Your task to perform on an android device: turn off translation in the chrome app Image 0: 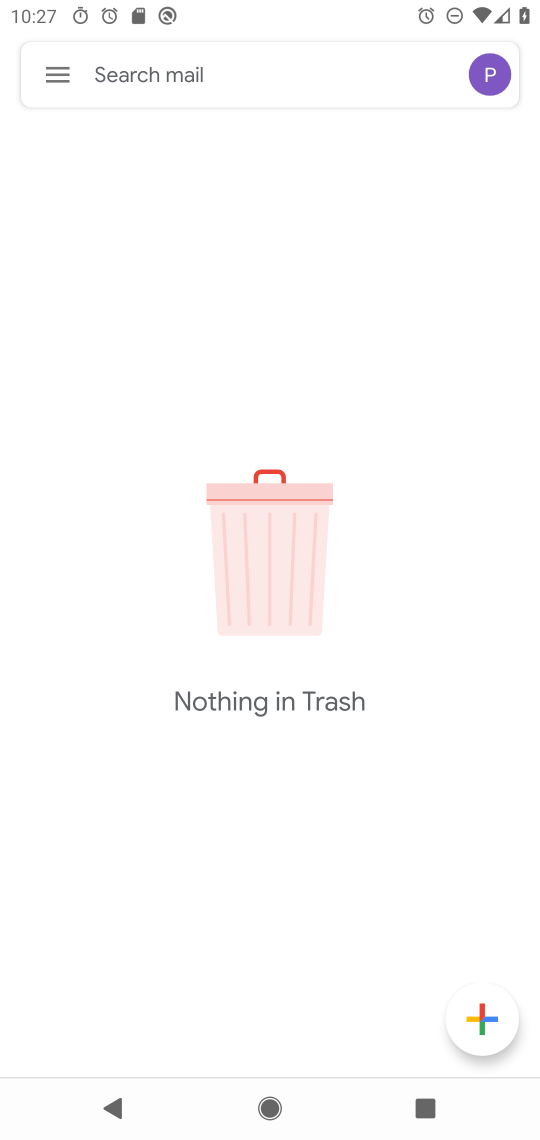
Step 0: press home button
Your task to perform on an android device: turn off translation in the chrome app Image 1: 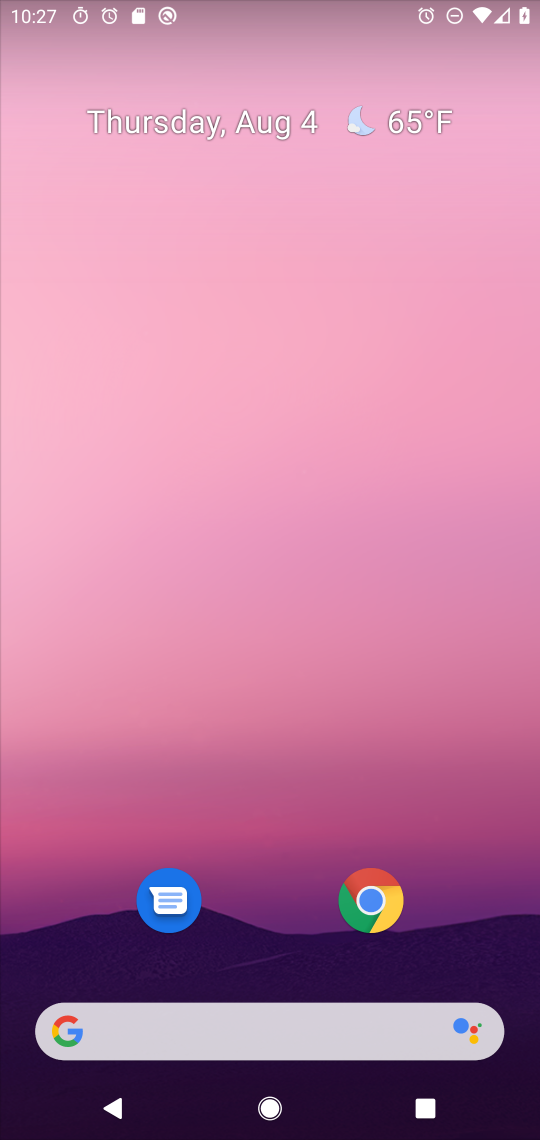
Step 1: click (373, 902)
Your task to perform on an android device: turn off translation in the chrome app Image 2: 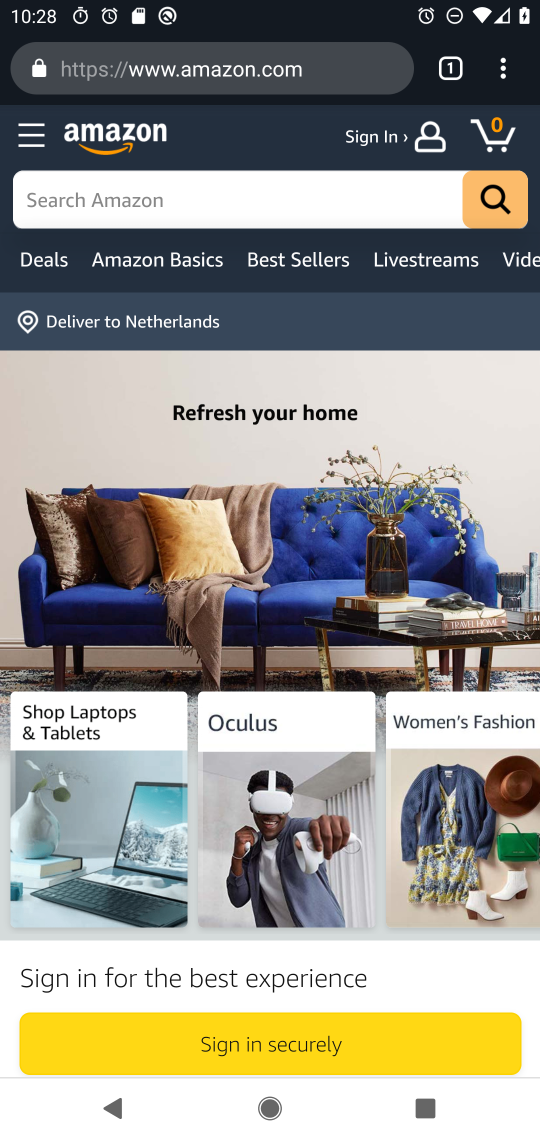
Step 2: drag from (506, 72) to (263, 888)
Your task to perform on an android device: turn off translation in the chrome app Image 3: 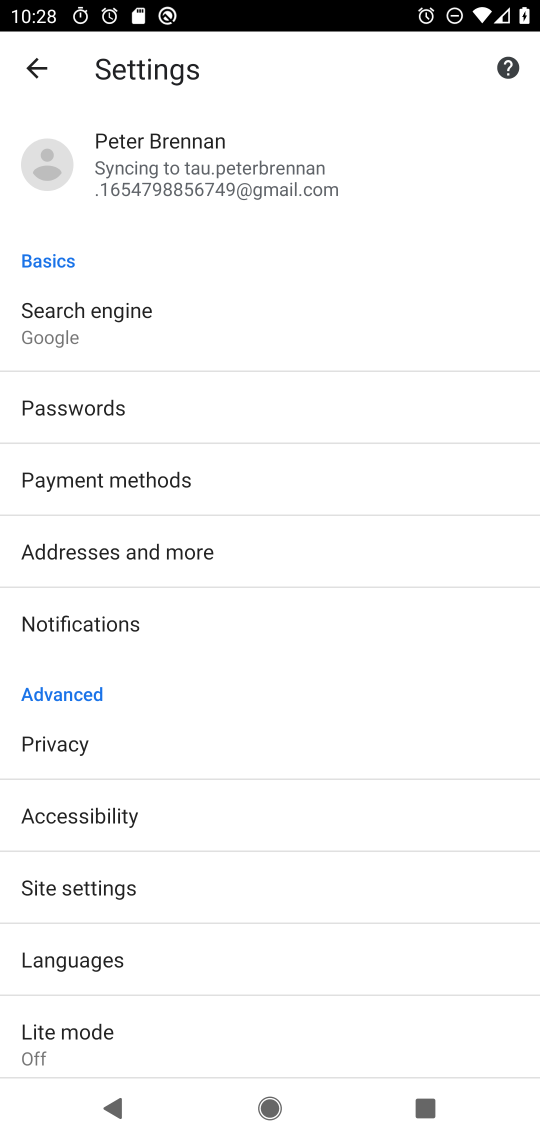
Step 3: click (77, 965)
Your task to perform on an android device: turn off translation in the chrome app Image 4: 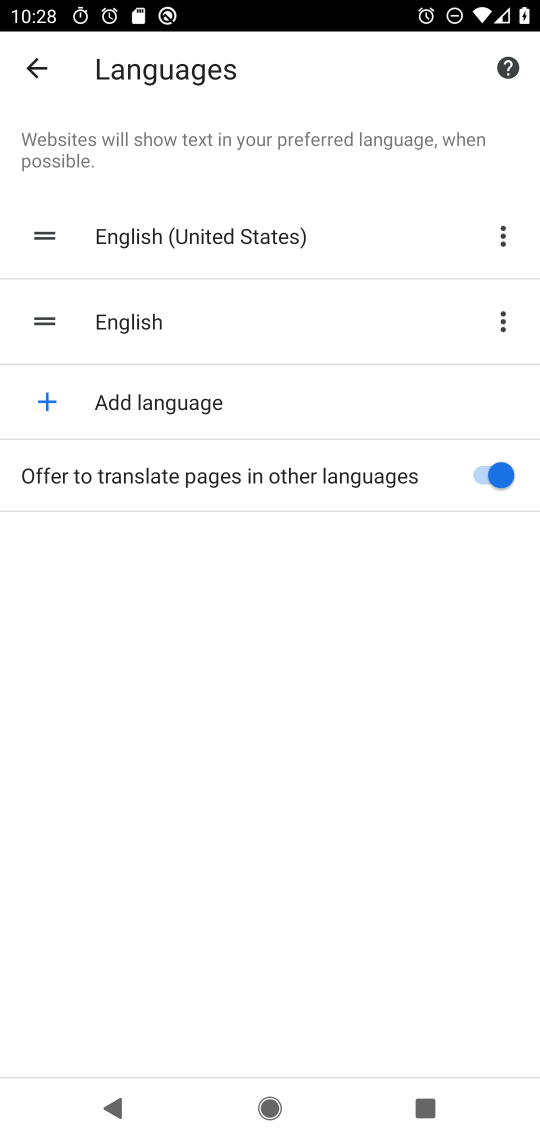
Step 4: click (484, 477)
Your task to perform on an android device: turn off translation in the chrome app Image 5: 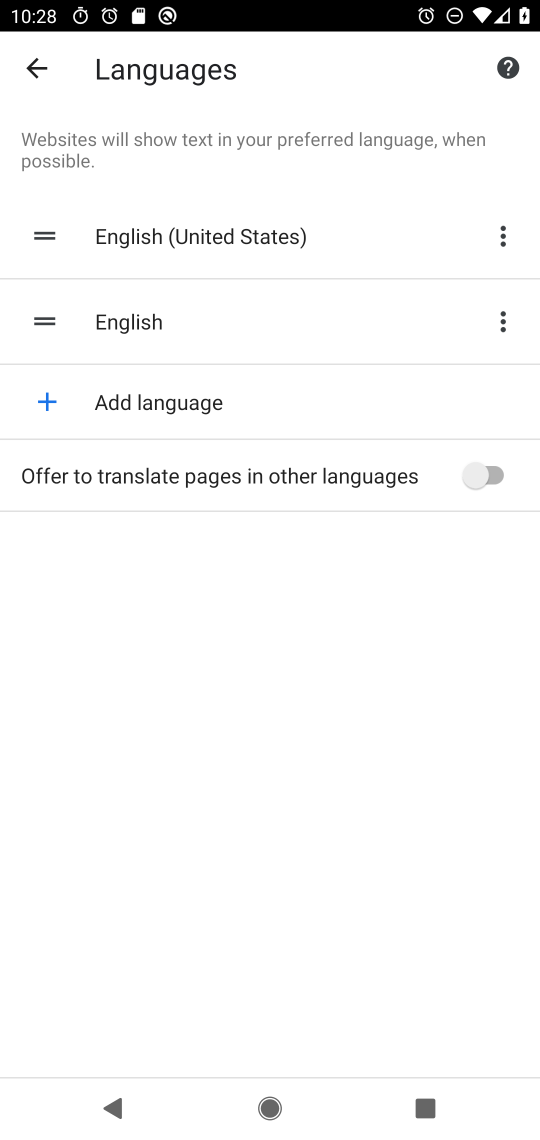
Step 5: task complete